Your task to perform on an android device: Show me the alarms in the clock app Image 0: 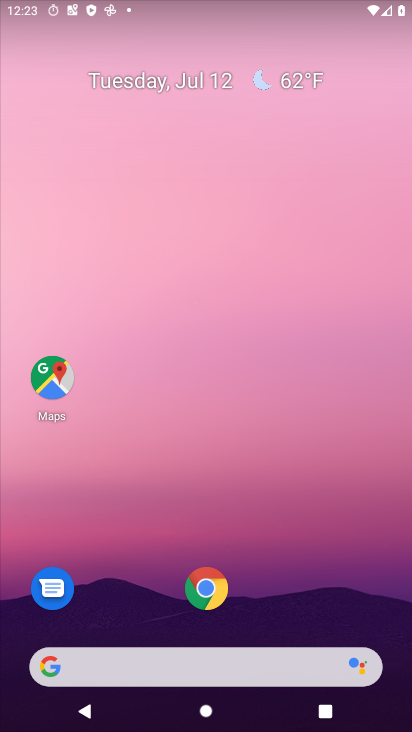
Step 0: drag from (195, 432) to (258, 6)
Your task to perform on an android device: Show me the alarms in the clock app Image 1: 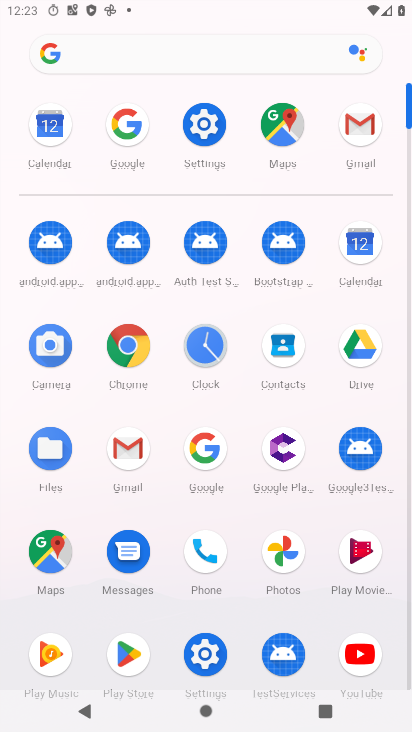
Step 1: click (203, 359)
Your task to perform on an android device: Show me the alarms in the clock app Image 2: 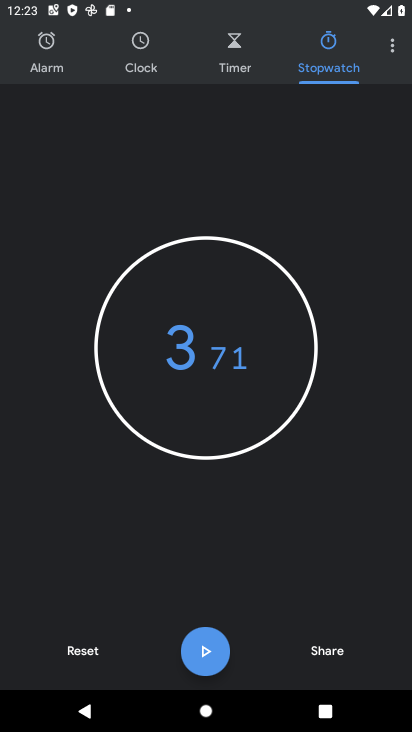
Step 2: click (45, 58)
Your task to perform on an android device: Show me the alarms in the clock app Image 3: 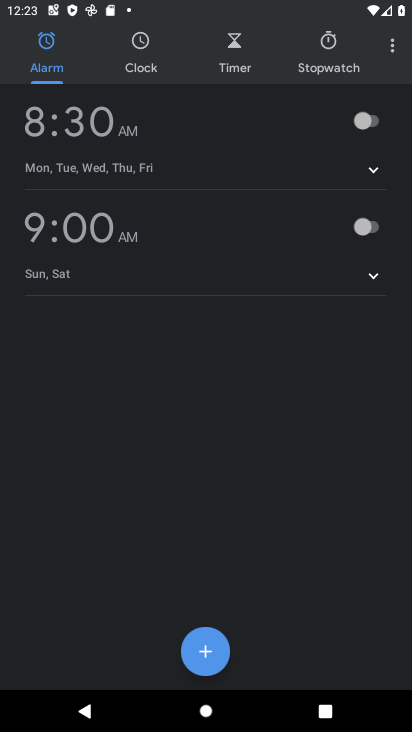
Step 3: task complete